Your task to perform on an android device: What's the weather? Image 0: 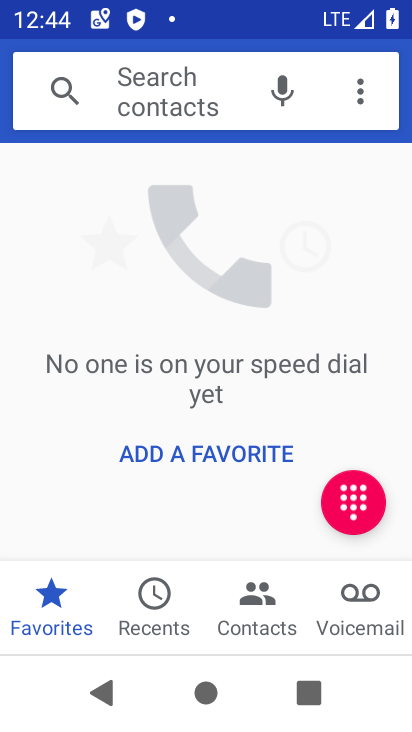
Step 0: press home button
Your task to perform on an android device: What's the weather? Image 1: 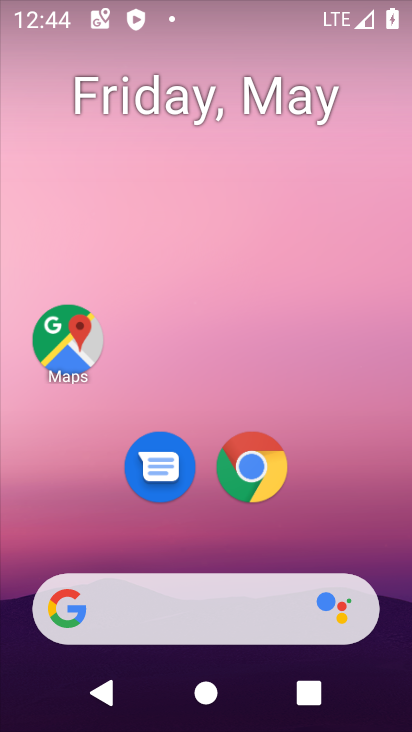
Step 1: drag from (325, 524) to (250, 107)
Your task to perform on an android device: What's the weather? Image 2: 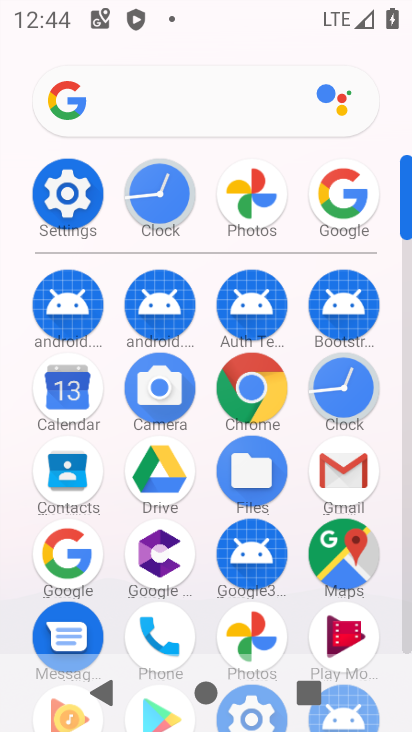
Step 2: click (336, 191)
Your task to perform on an android device: What's the weather? Image 3: 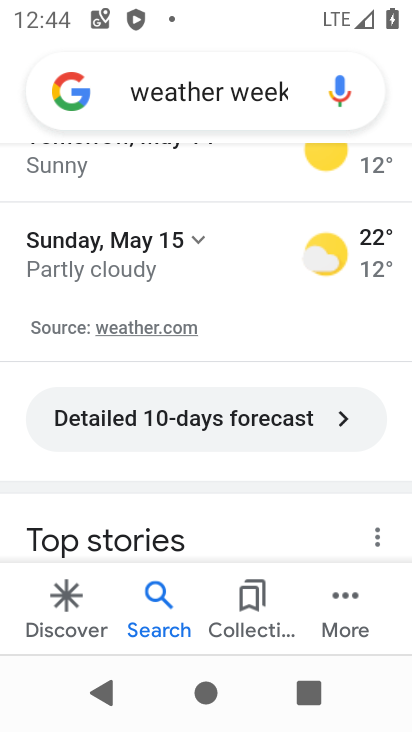
Step 3: drag from (240, 215) to (266, 508)
Your task to perform on an android device: What's the weather? Image 4: 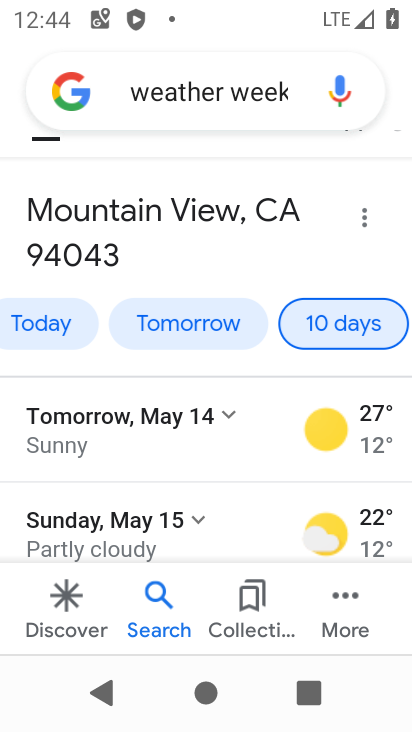
Step 4: click (55, 329)
Your task to perform on an android device: What's the weather? Image 5: 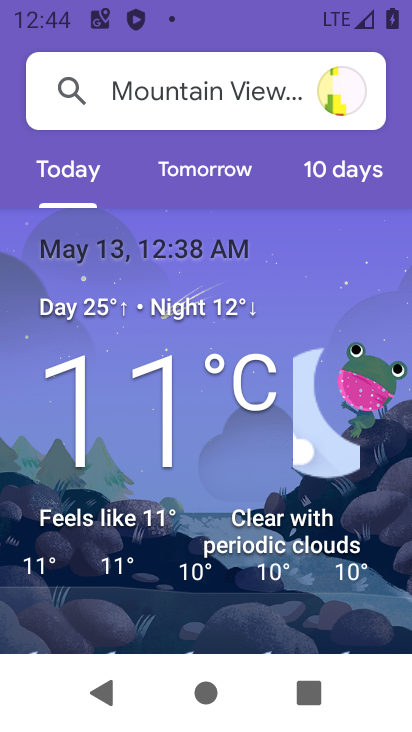
Step 5: task complete